Your task to perform on an android device: toggle improve location accuracy Image 0: 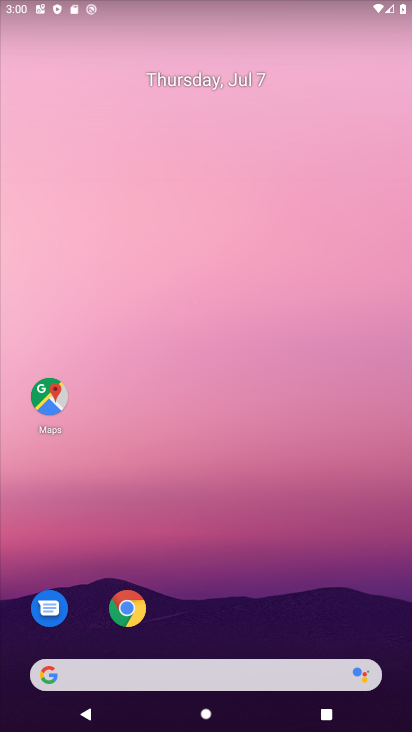
Step 0: press home button
Your task to perform on an android device: toggle improve location accuracy Image 1: 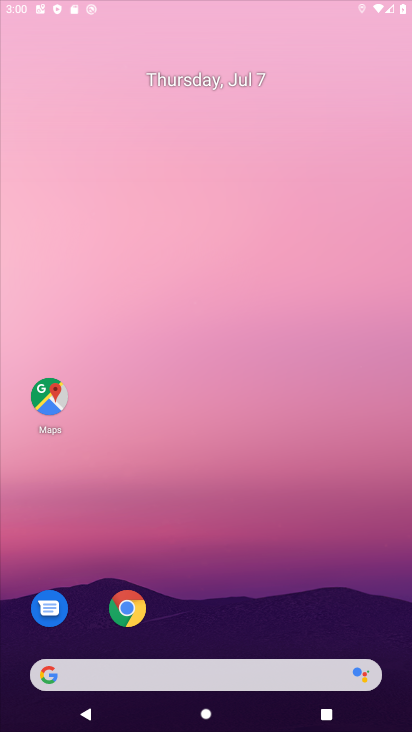
Step 1: drag from (229, 635) to (224, 80)
Your task to perform on an android device: toggle improve location accuracy Image 2: 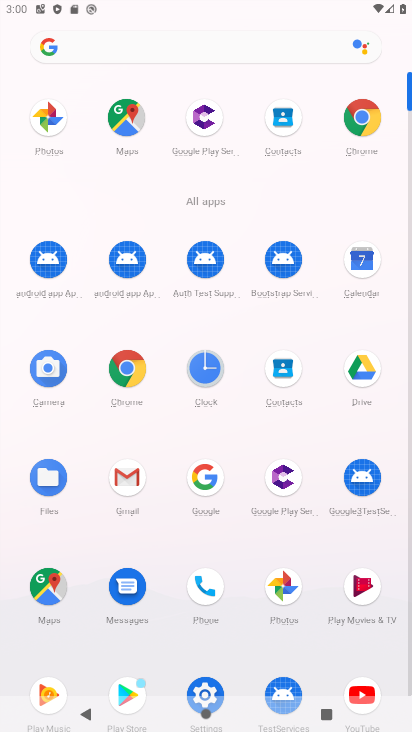
Step 2: click (201, 685)
Your task to perform on an android device: toggle improve location accuracy Image 3: 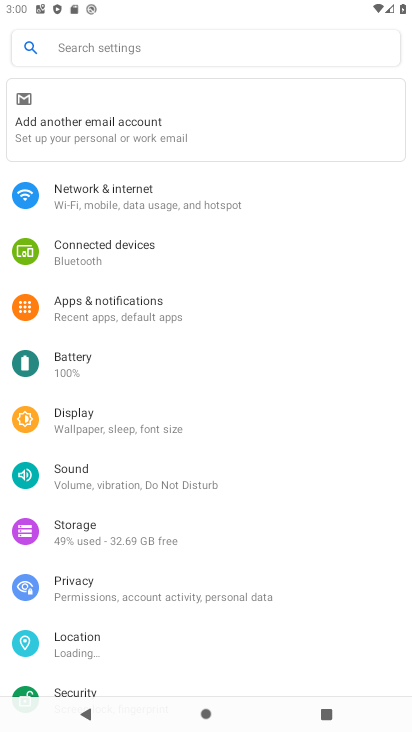
Step 3: click (108, 638)
Your task to perform on an android device: toggle improve location accuracy Image 4: 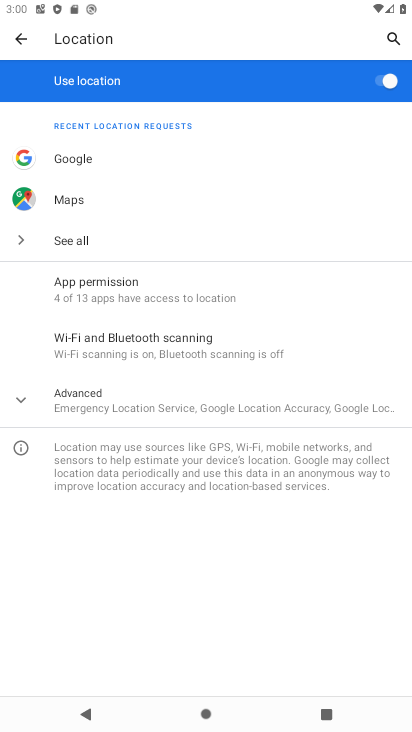
Step 4: click (57, 401)
Your task to perform on an android device: toggle improve location accuracy Image 5: 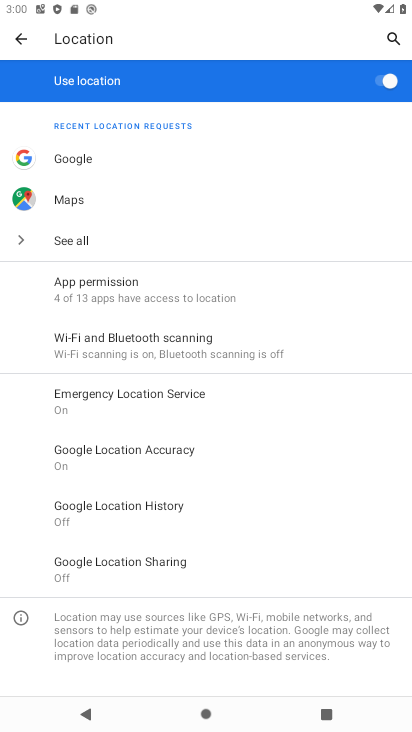
Step 5: click (135, 463)
Your task to perform on an android device: toggle improve location accuracy Image 6: 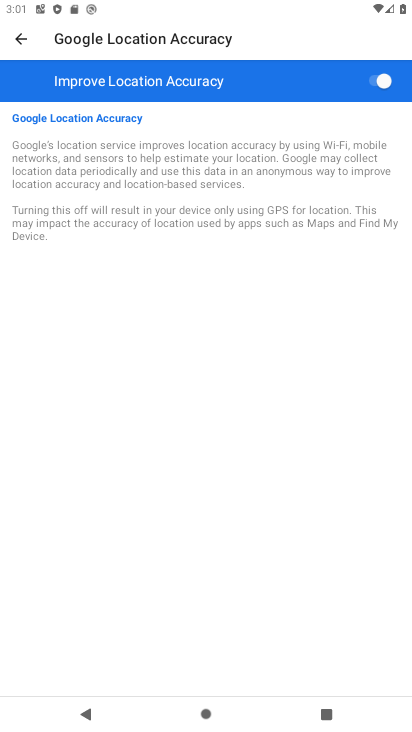
Step 6: task complete